Your task to perform on an android device: turn on bluetooth scan Image 0: 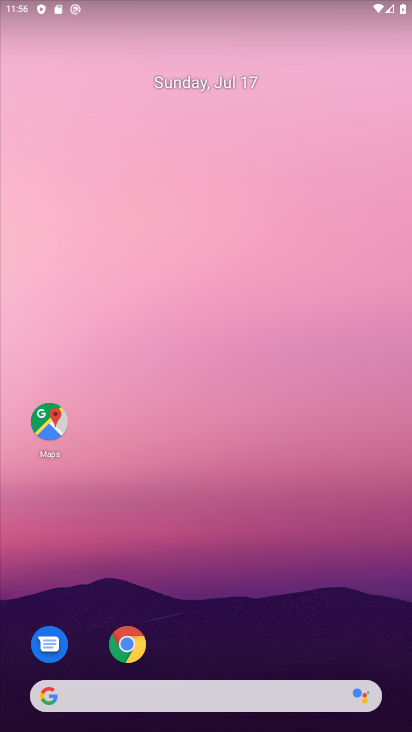
Step 0: click (227, 1)
Your task to perform on an android device: turn on bluetooth scan Image 1: 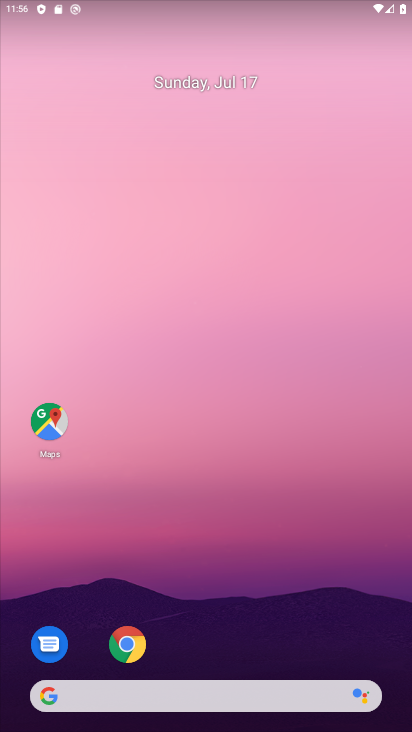
Step 1: drag from (282, 598) to (271, 71)
Your task to perform on an android device: turn on bluetooth scan Image 2: 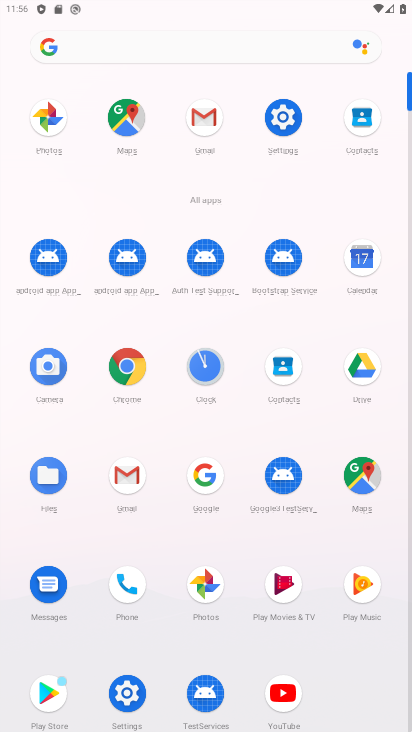
Step 2: click (283, 100)
Your task to perform on an android device: turn on bluetooth scan Image 3: 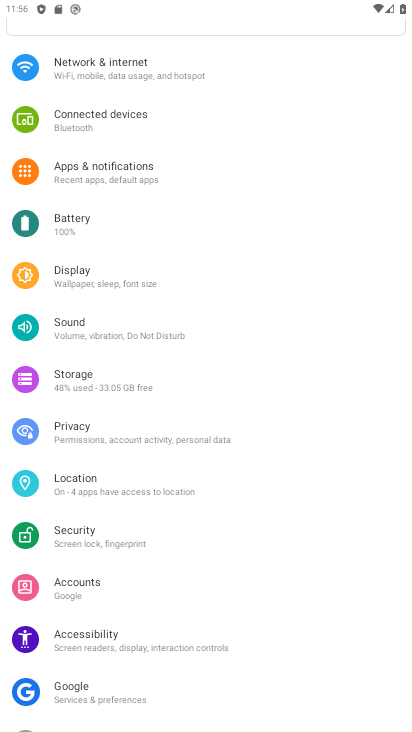
Step 3: click (91, 497)
Your task to perform on an android device: turn on bluetooth scan Image 4: 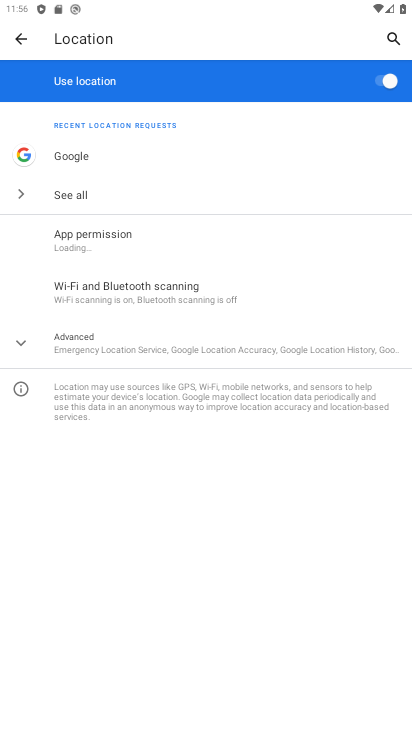
Step 4: click (245, 347)
Your task to perform on an android device: turn on bluetooth scan Image 5: 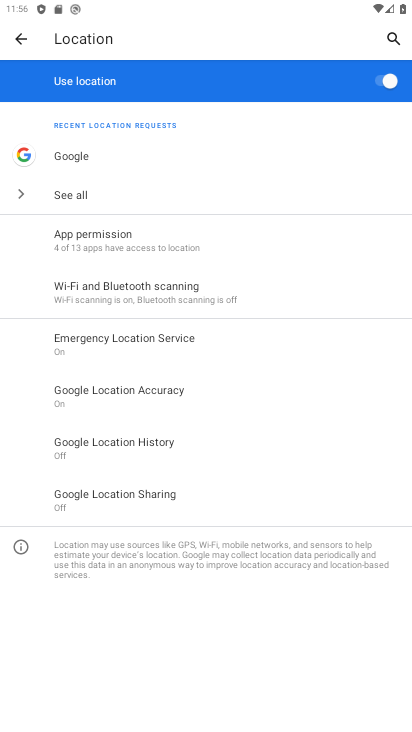
Step 5: click (181, 308)
Your task to perform on an android device: turn on bluetooth scan Image 6: 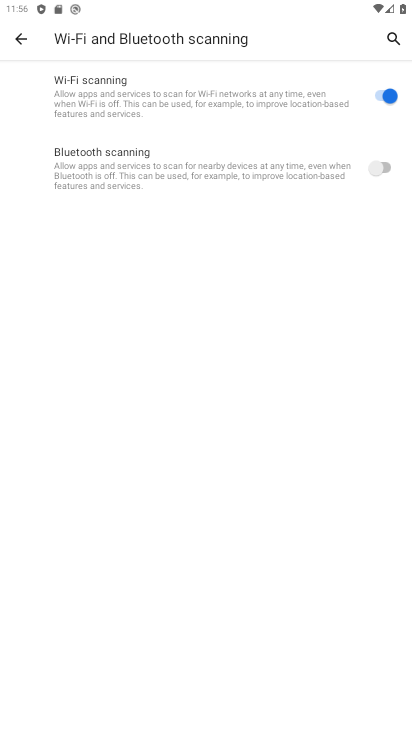
Step 6: click (375, 163)
Your task to perform on an android device: turn on bluetooth scan Image 7: 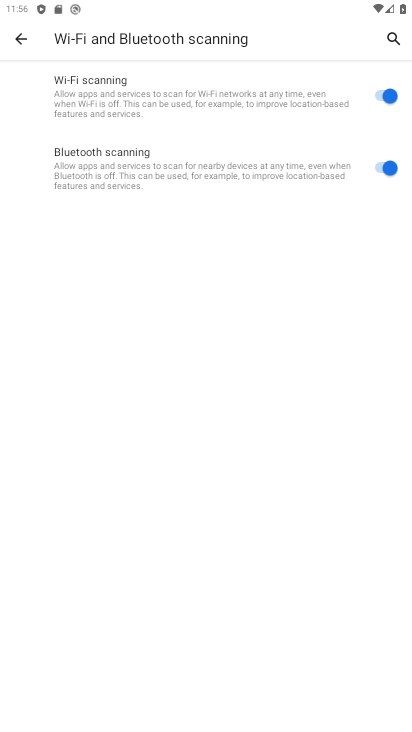
Step 7: task complete